Your task to perform on an android device: How much does a 3 bedroom apartment rent for in Chicago? Image 0: 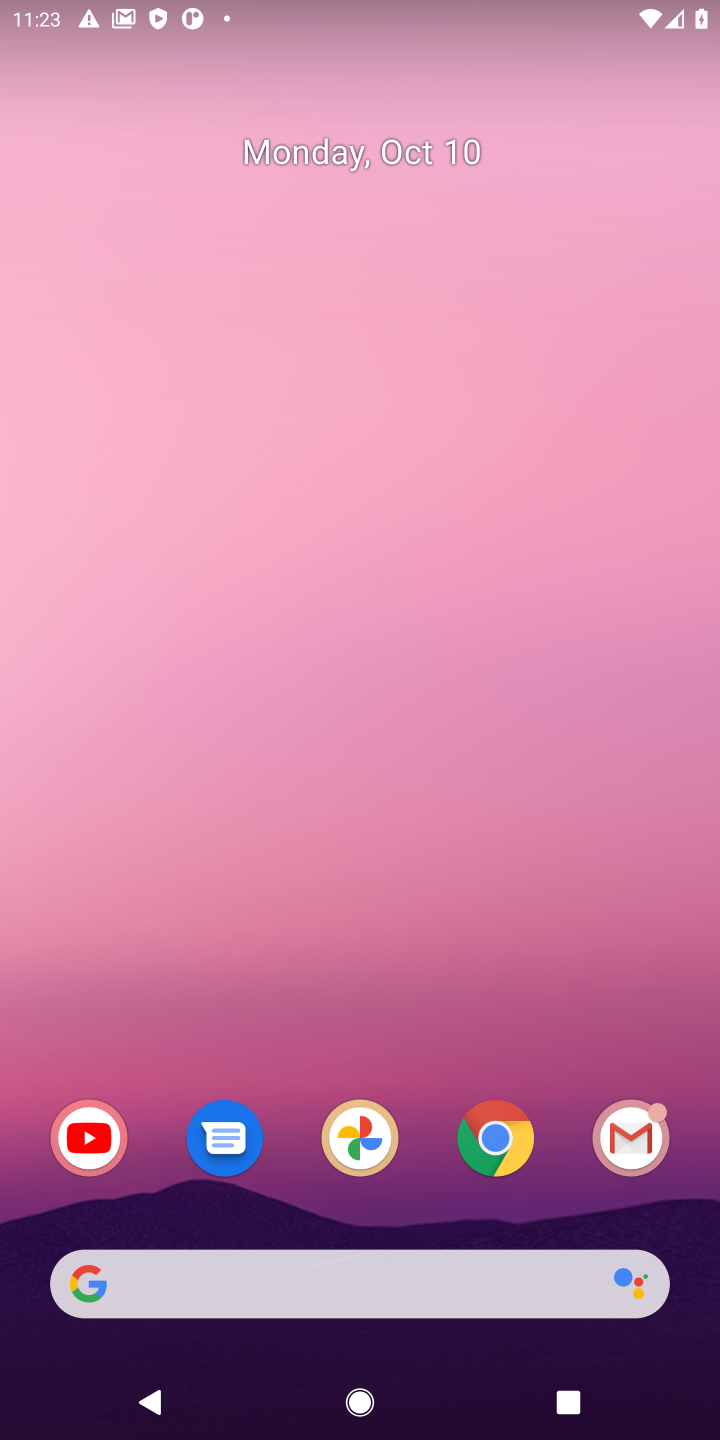
Step 0: press home button
Your task to perform on an android device: How much does a 3 bedroom apartment rent for in Chicago? Image 1: 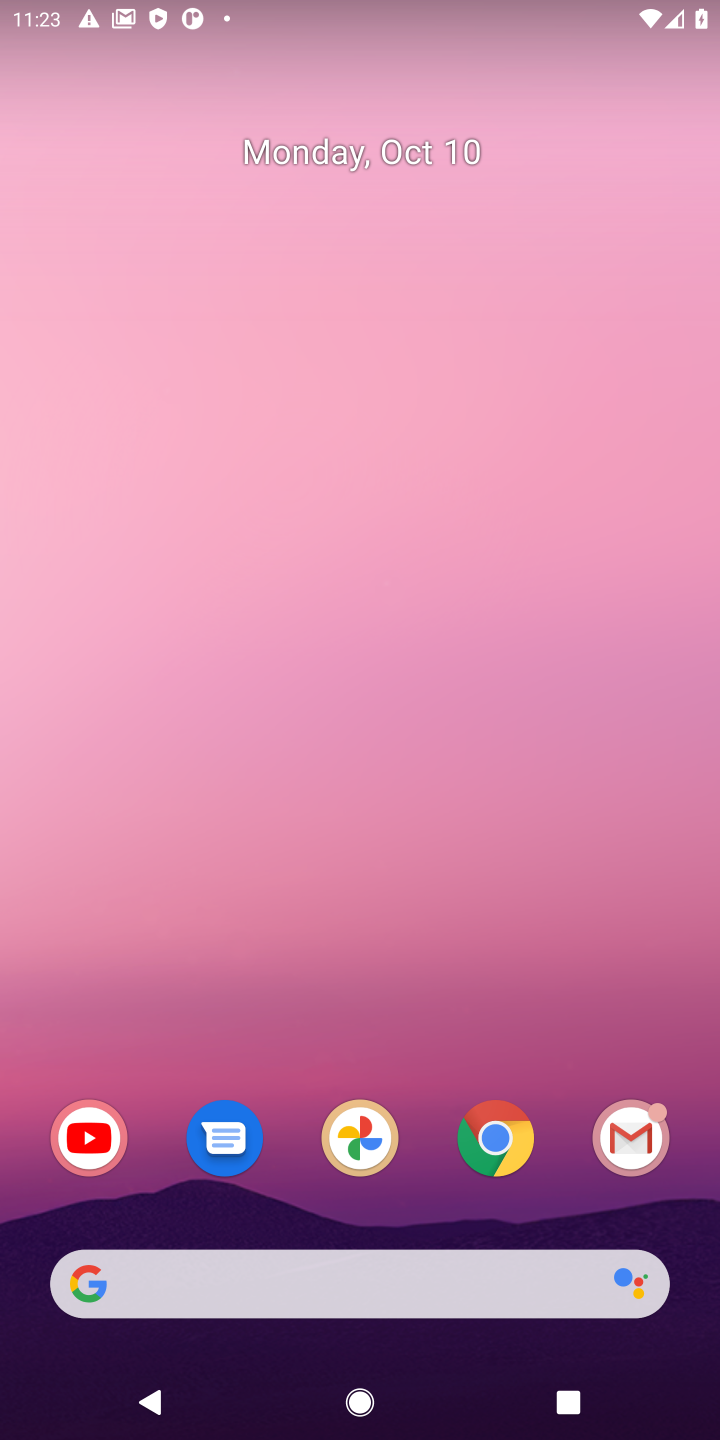
Step 1: click (85, 1289)
Your task to perform on an android device: How much does a 3 bedroom apartment rent for in Chicago? Image 2: 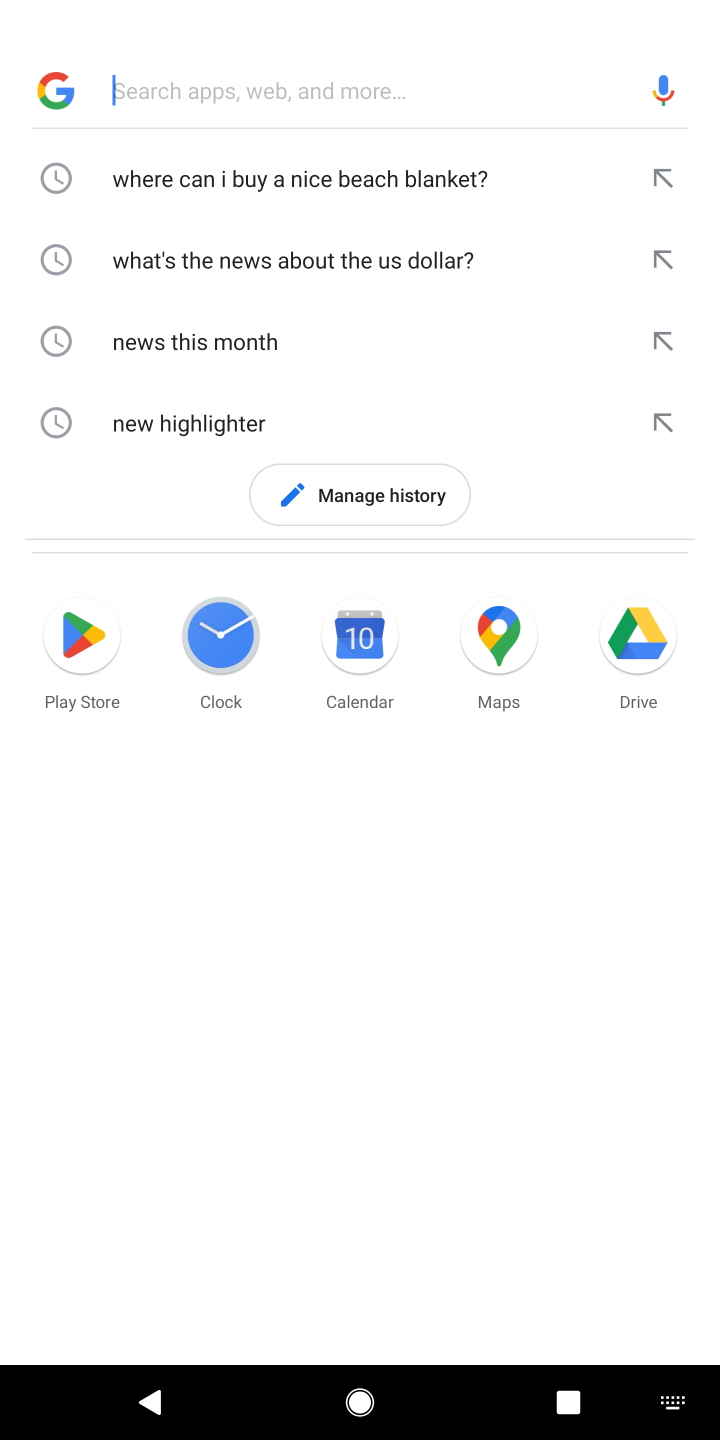
Step 2: type "How much does a 3 bedroom apartment rent for in Chicago?"
Your task to perform on an android device: How much does a 3 bedroom apartment rent for in Chicago? Image 3: 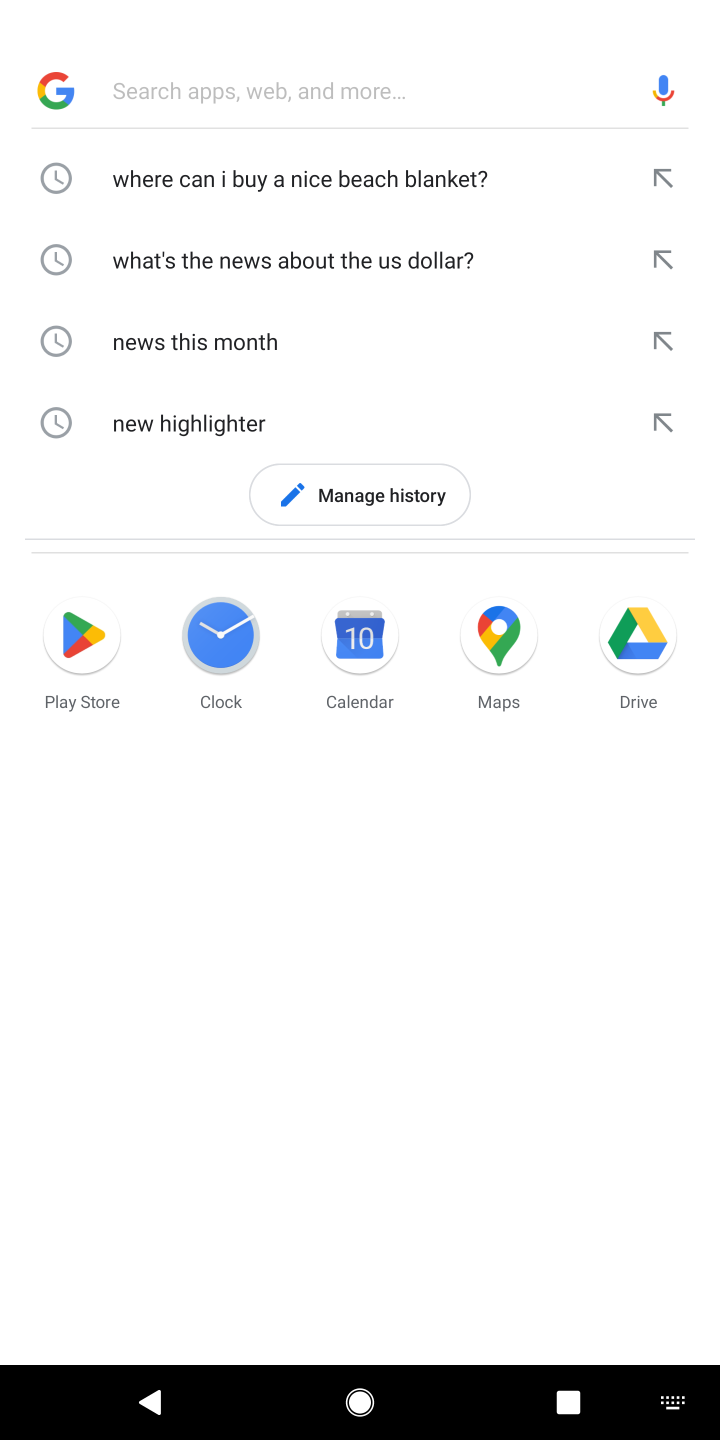
Step 3: click (279, 86)
Your task to perform on an android device: How much does a 3 bedroom apartment rent for in Chicago? Image 4: 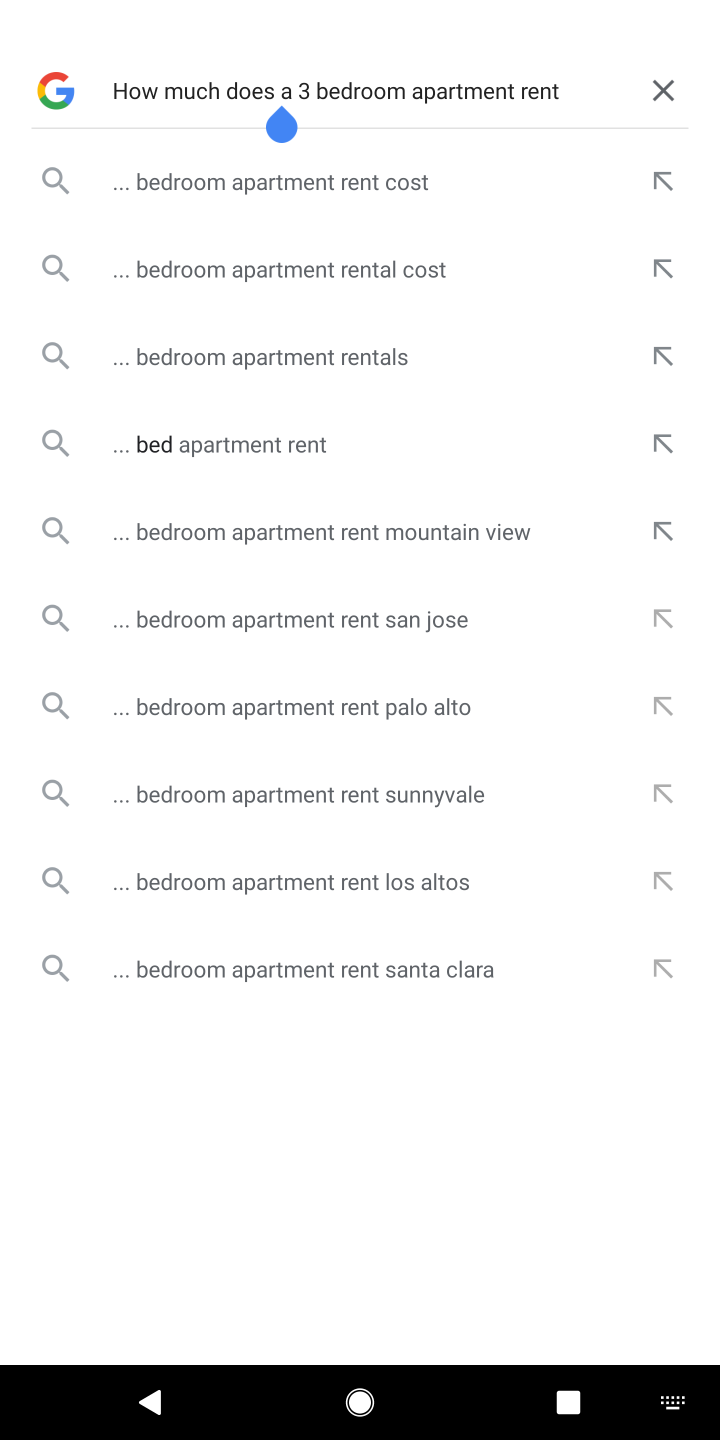
Step 4: press enter
Your task to perform on an android device: How much does a 3 bedroom apartment rent for in Chicago? Image 5: 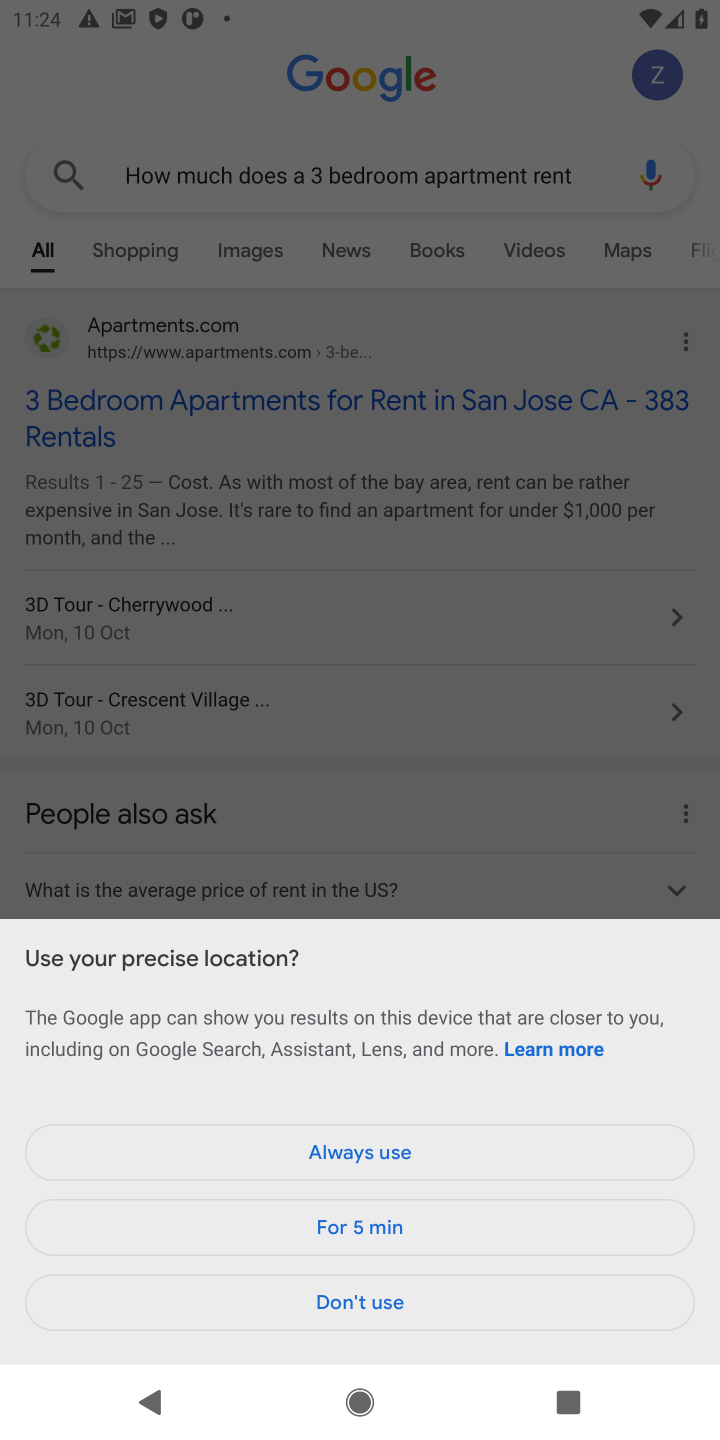
Step 5: click (469, 774)
Your task to perform on an android device: How much does a 3 bedroom apartment rent for in Chicago? Image 6: 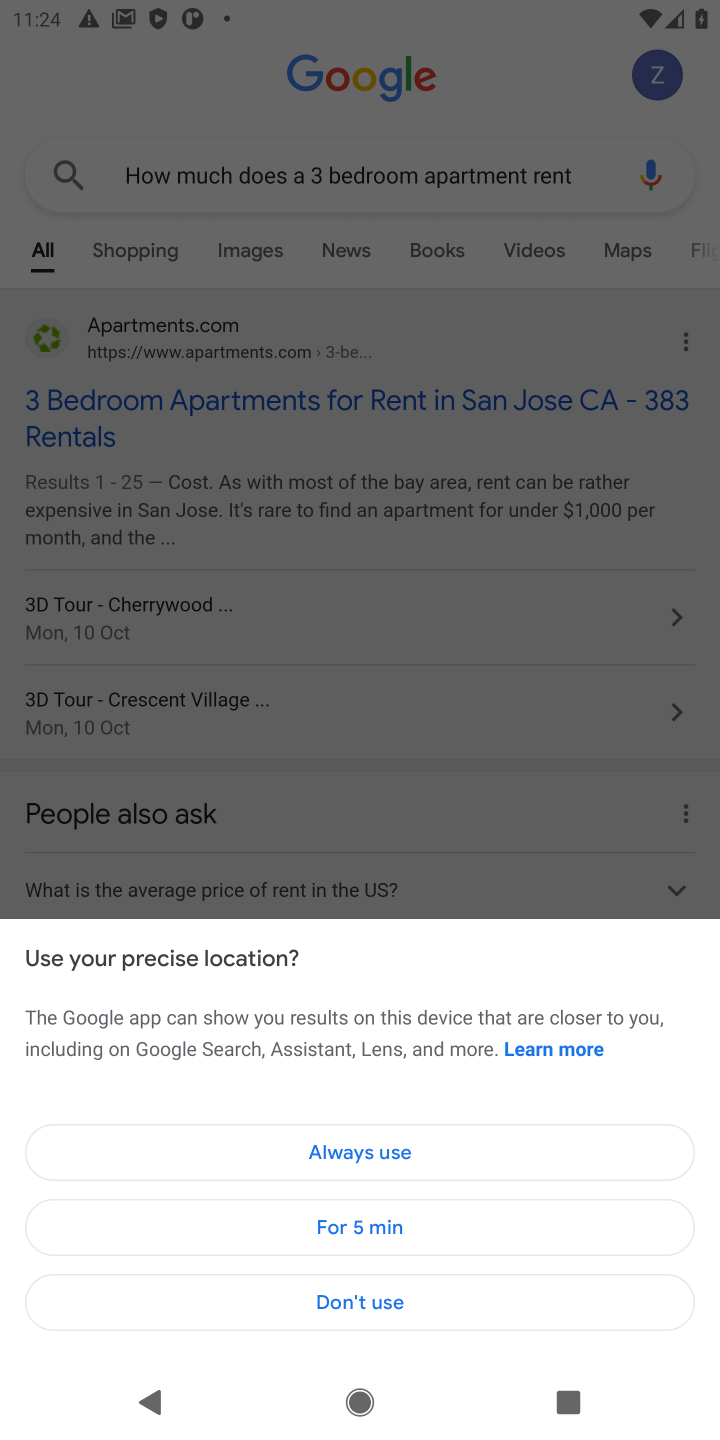
Step 6: click (379, 1144)
Your task to perform on an android device: How much does a 3 bedroom apartment rent for in Chicago? Image 7: 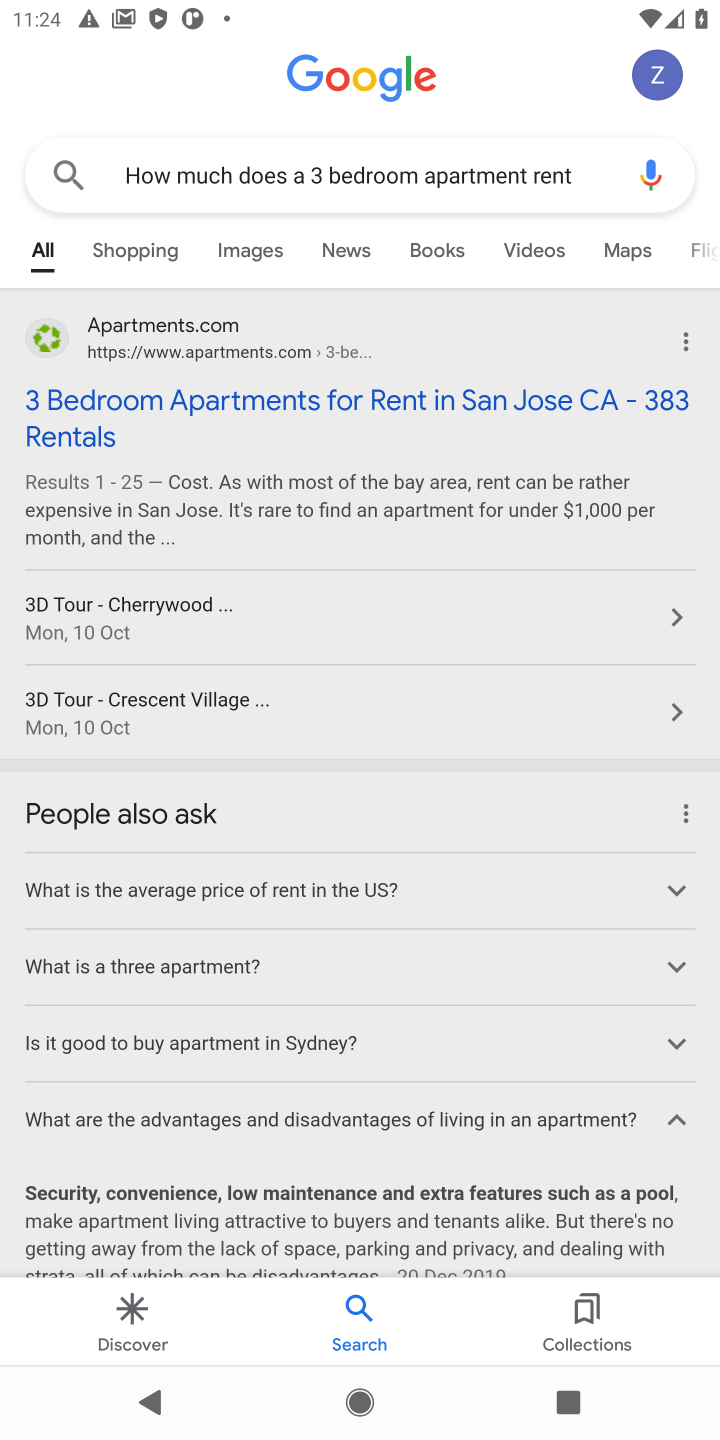
Step 7: task complete